Your task to perform on an android device: View the shopping cart on costco. Add dell alienware to the cart on costco Image 0: 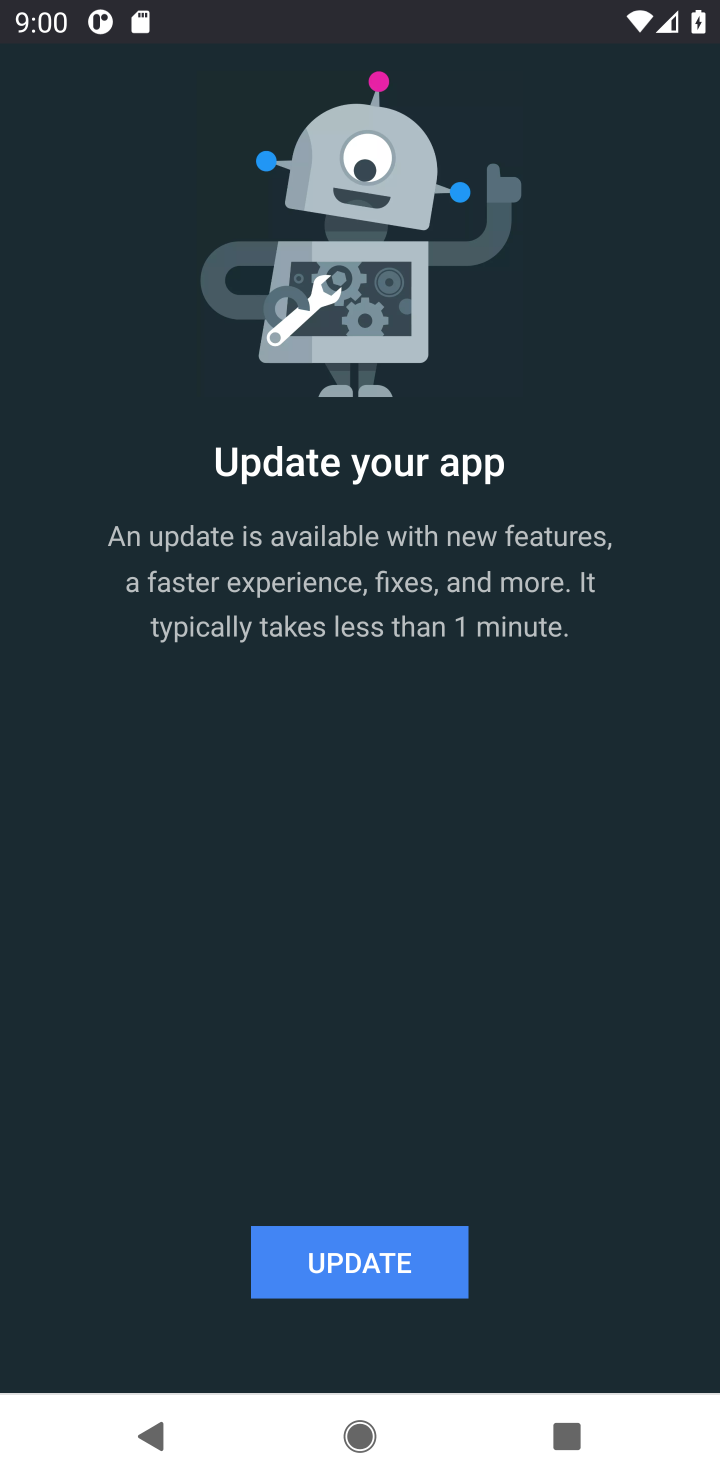
Step 0: press home button
Your task to perform on an android device: View the shopping cart on costco. Add dell alienware to the cart on costco Image 1: 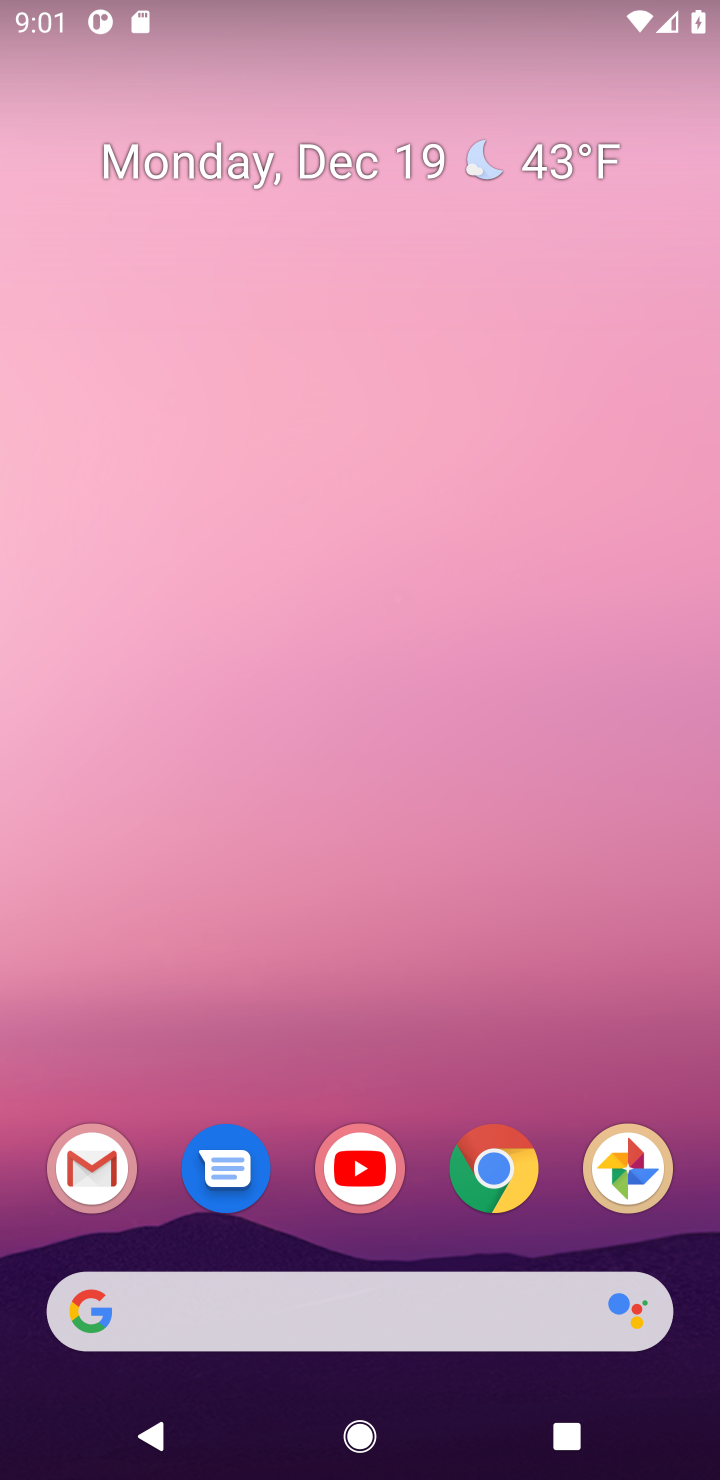
Step 1: click (489, 1178)
Your task to perform on an android device: View the shopping cart on costco. Add dell alienware to the cart on costco Image 2: 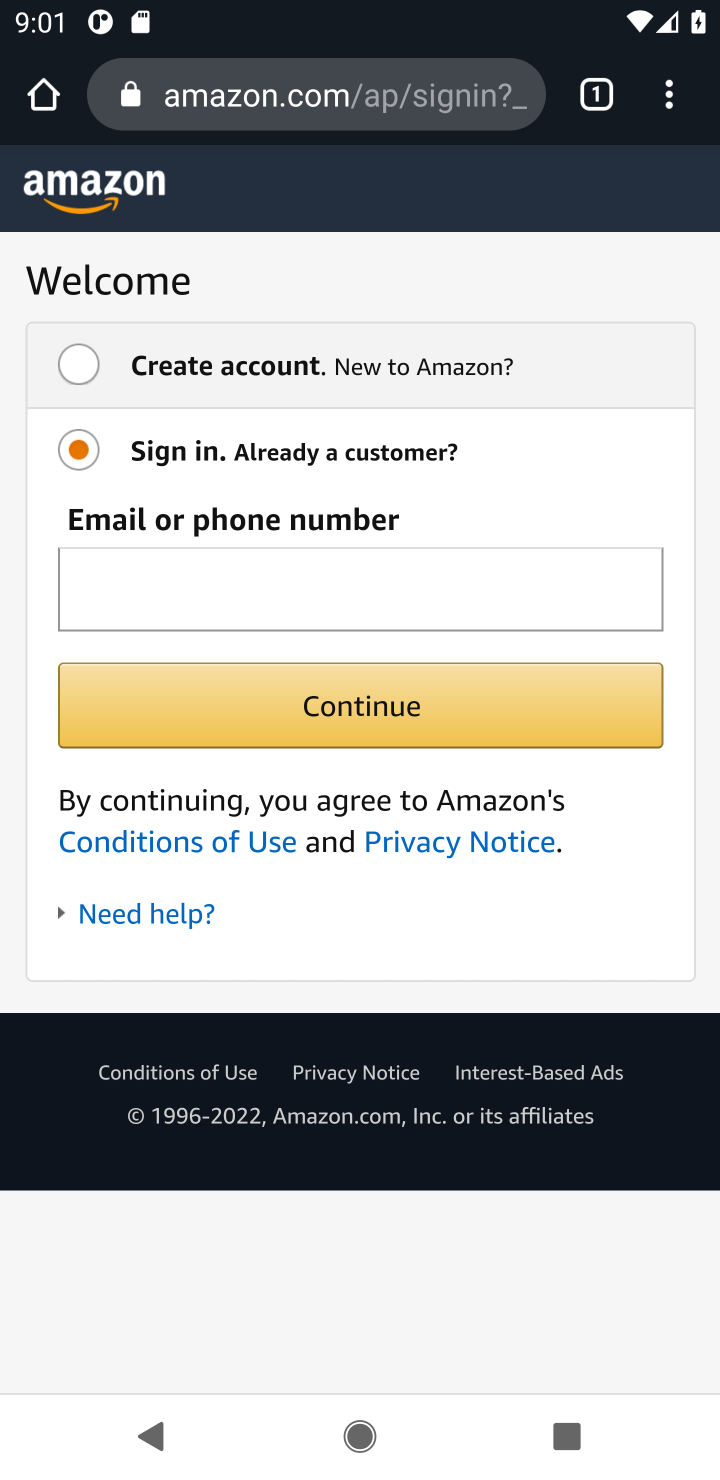
Step 2: click (240, 113)
Your task to perform on an android device: View the shopping cart on costco. Add dell alienware to the cart on costco Image 3: 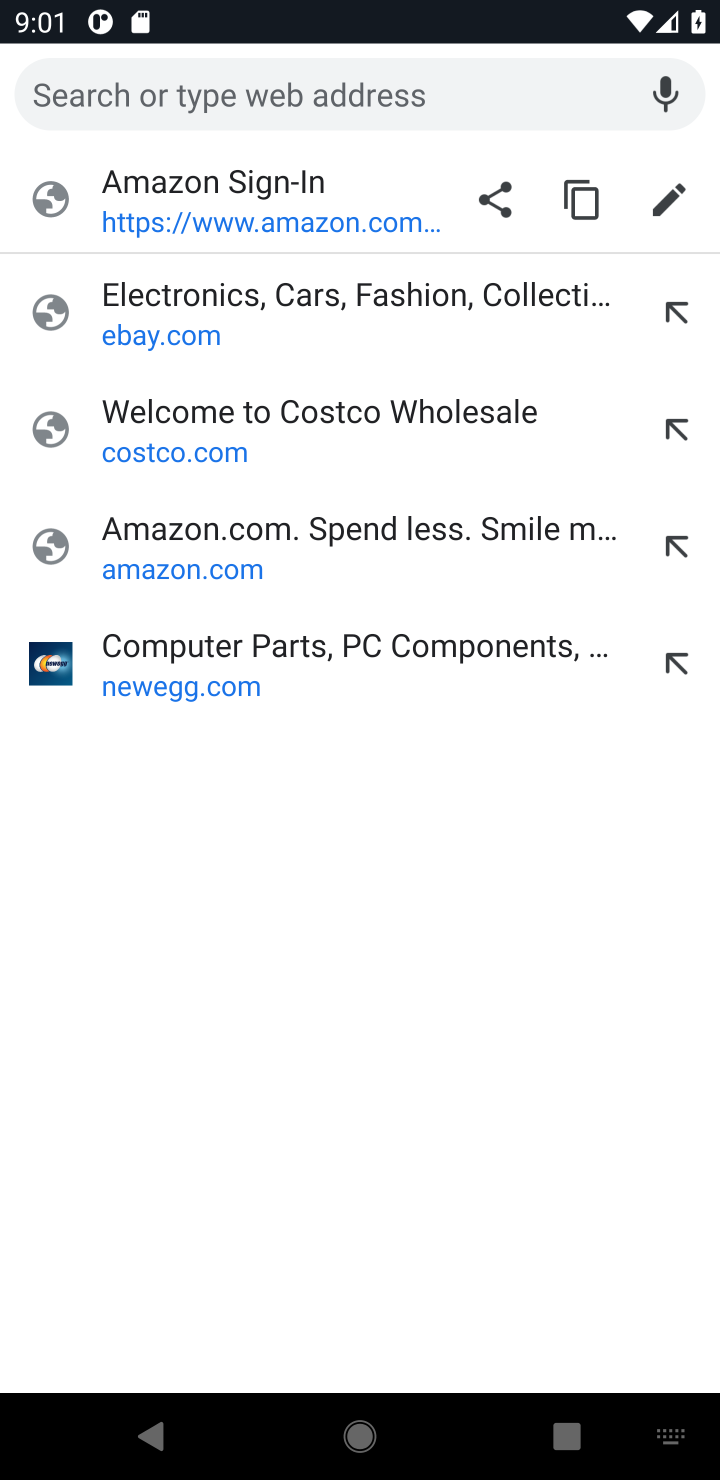
Step 3: click (136, 434)
Your task to perform on an android device: View the shopping cart on costco. Add dell alienware to the cart on costco Image 4: 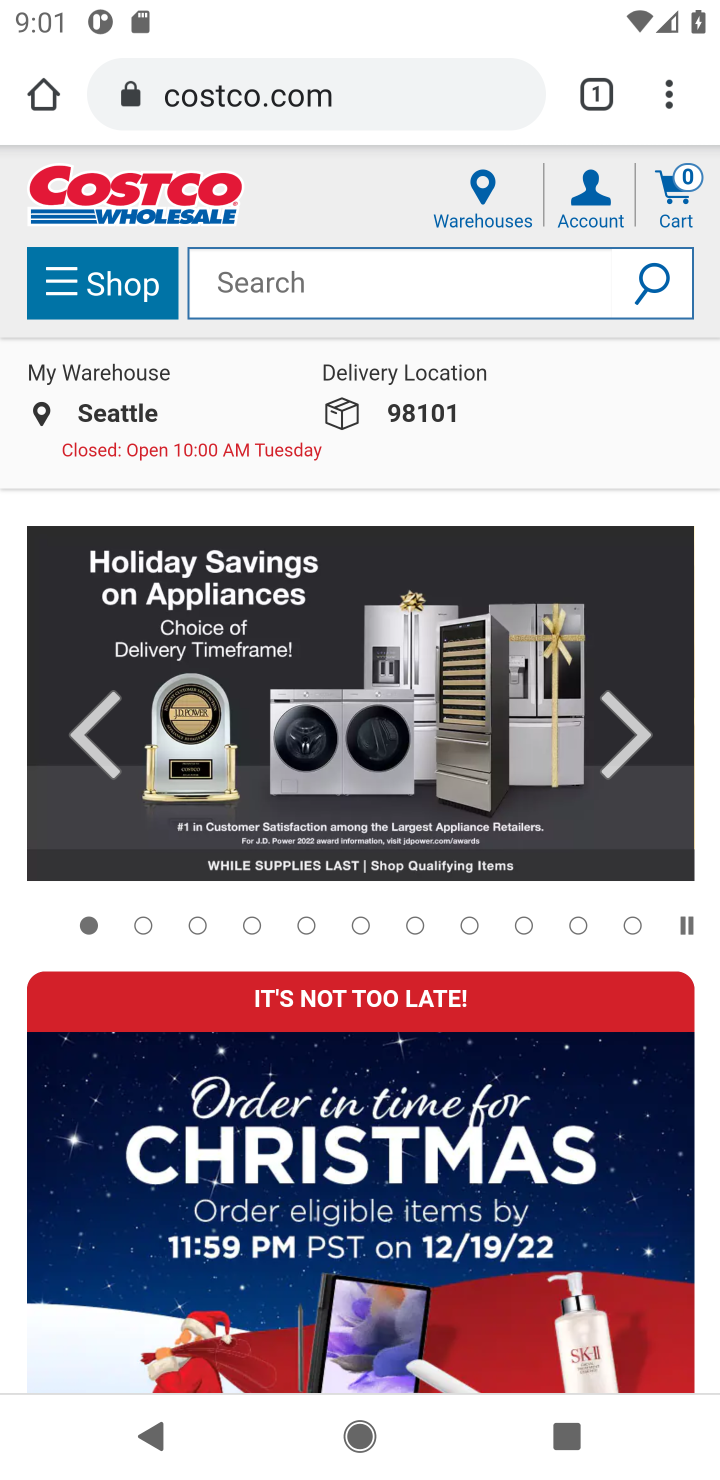
Step 4: click (658, 193)
Your task to perform on an android device: View the shopping cart on costco. Add dell alienware to the cart on costco Image 5: 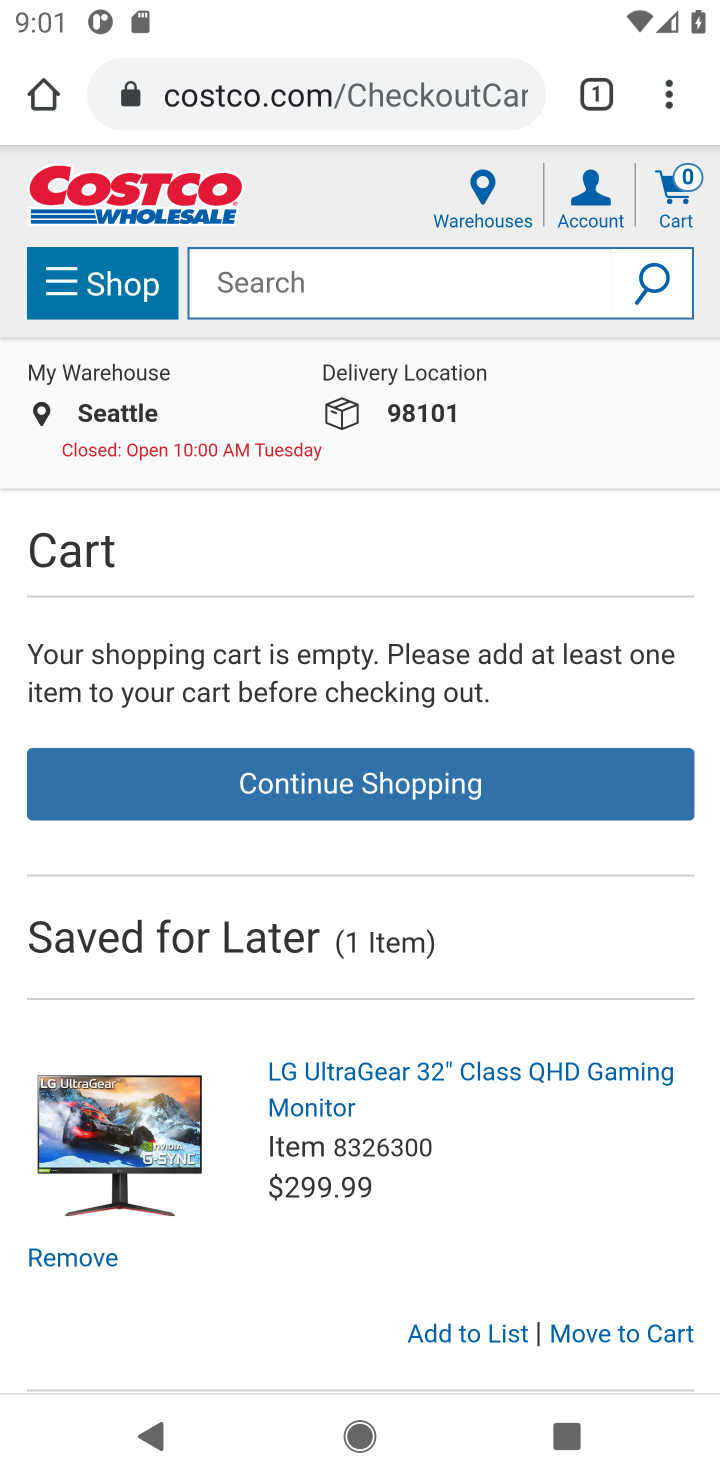
Step 5: click (260, 285)
Your task to perform on an android device: View the shopping cart on costco. Add dell alienware to the cart on costco Image 6: 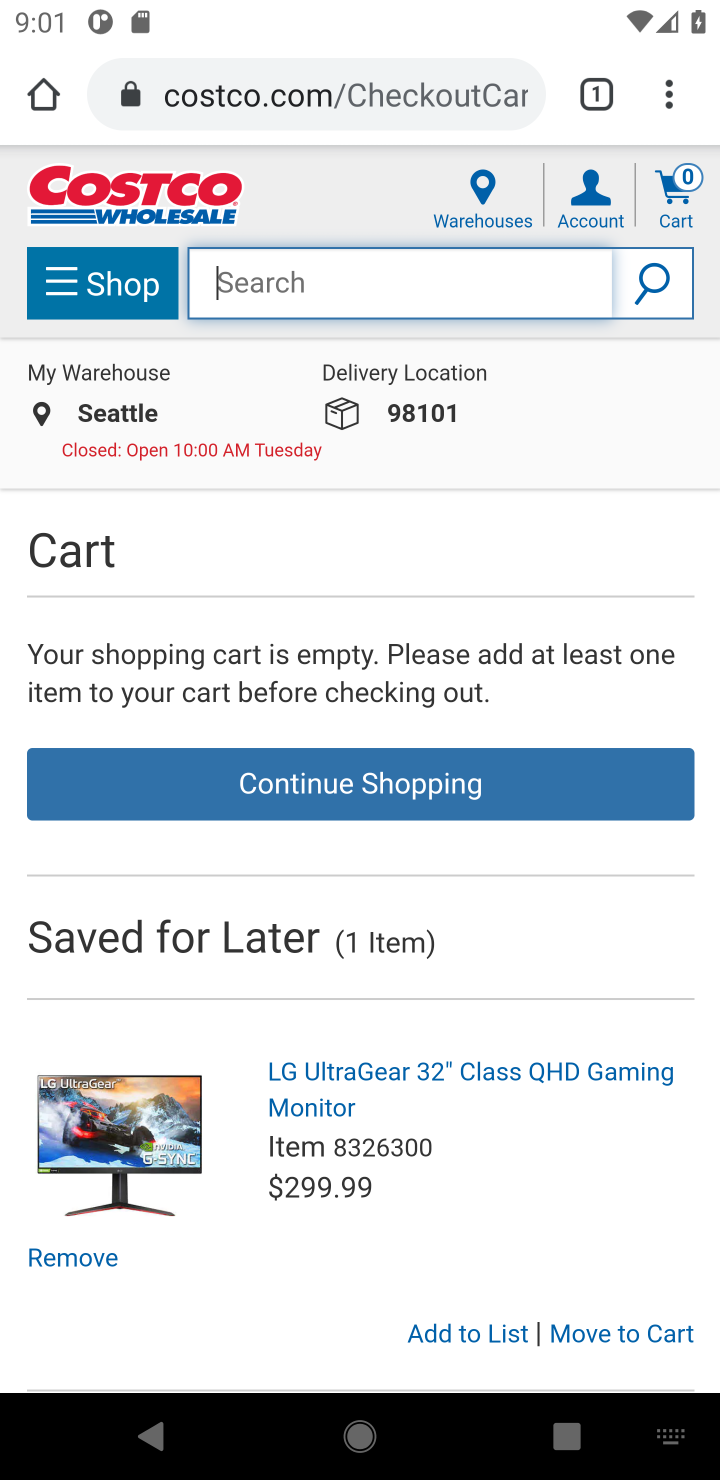
Step 6: type "dell alienware"
Your task to perform on an android device: View the shopping cart on costco. Add dell alienware to the cart on costco Image 7: 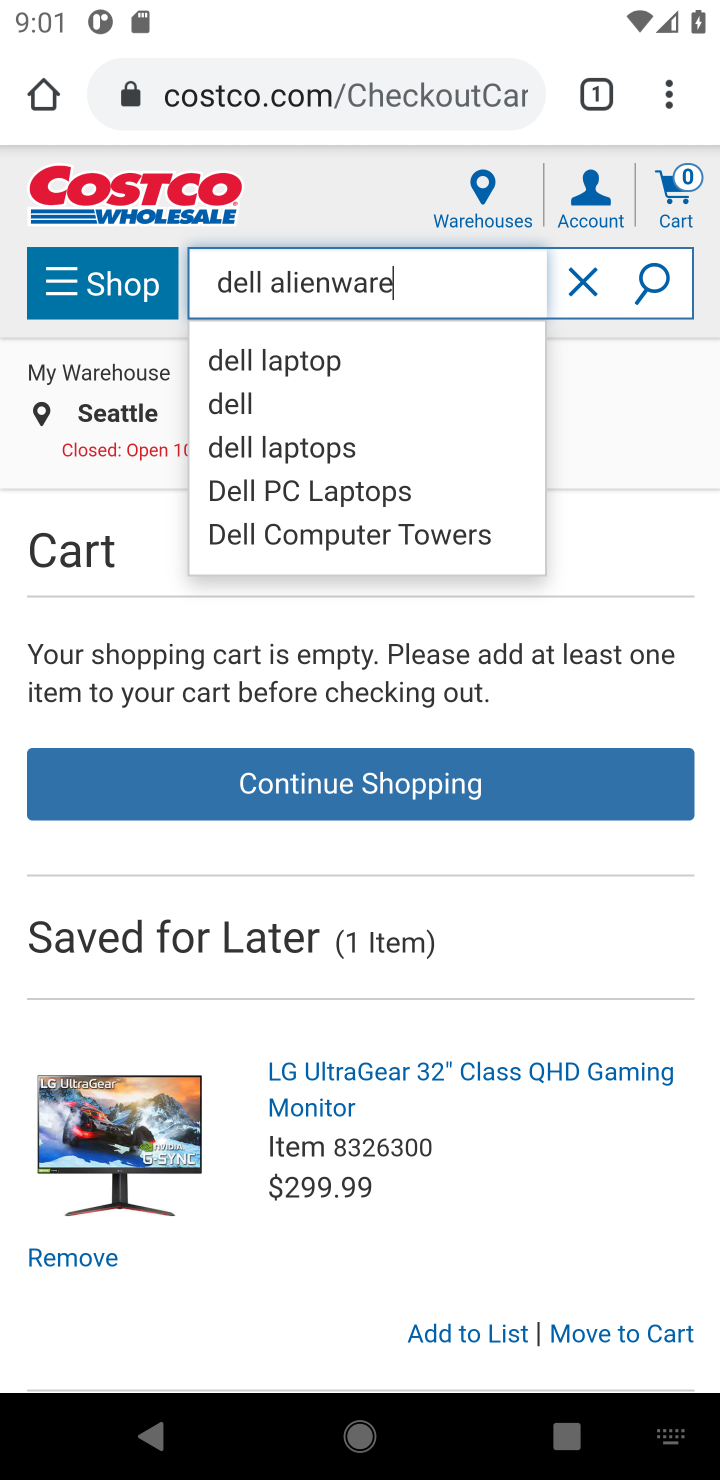
Step 7: click (644, 288)
Your task to perform on an android device: View the shopping cart on costco. Add dell alienware to the cart on costco Image 8: 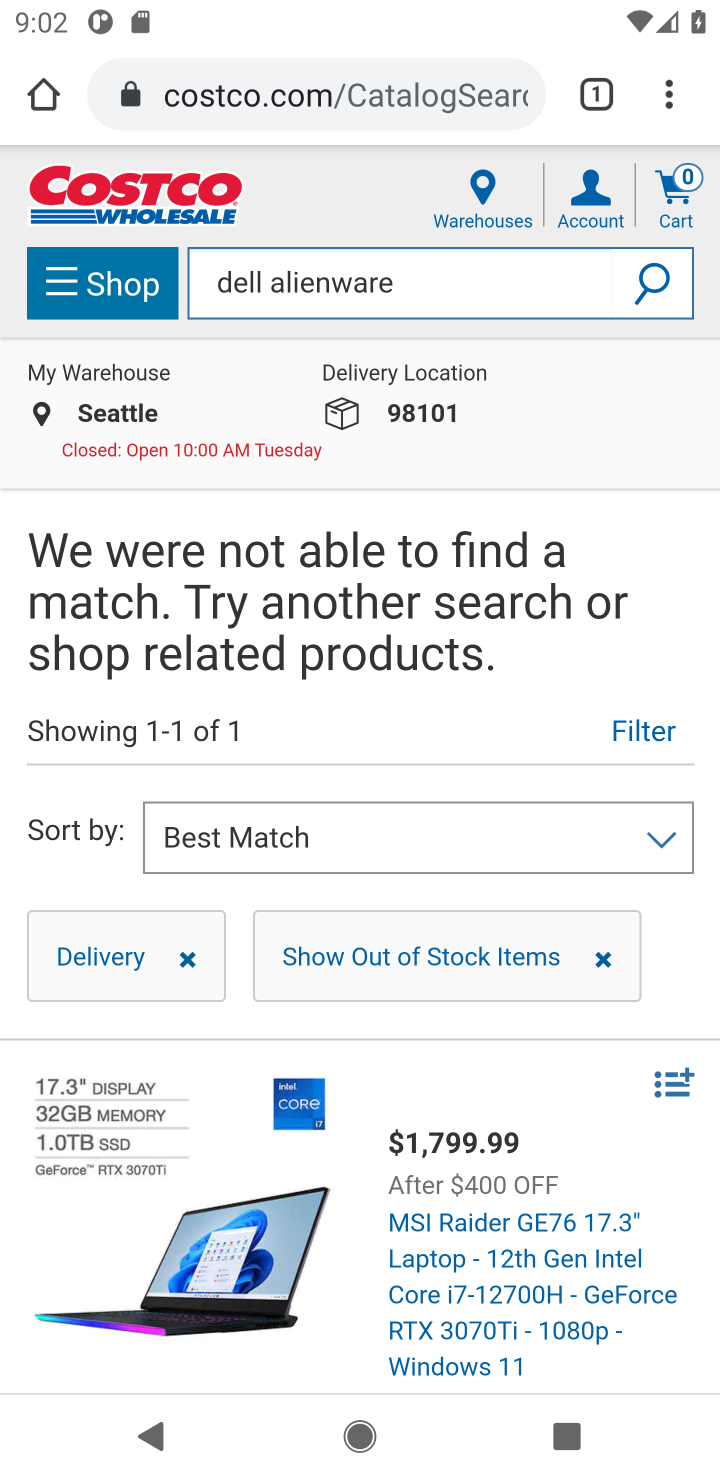
Step 8: task complete